Your task to perform on an android device: turn pop-ups off in chrome Image 0: 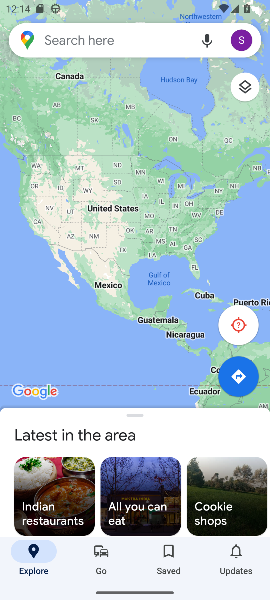
Step 0: press home button
Your task to perform on an android device: turn pop-ups off in chrome Image 1: 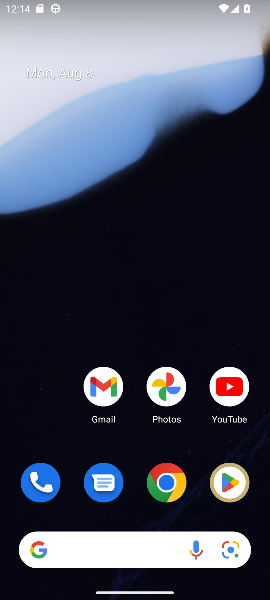
Step 1: drag from (152, 537) to (127, 307)
Your task to perform on an android device: turn pop-ups off in chrome Image 2: 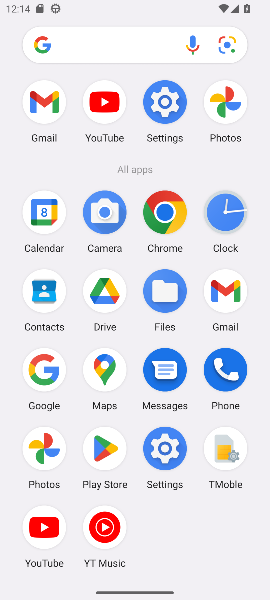
Step 2: click (163, 204)
Your task to perform on an android device: turn pop-ups off in chrome Image 3: 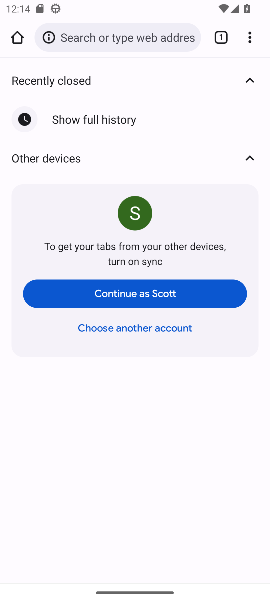
Step 3: click (247, 36)
Your task to perform on an android device: turn pop-ups off in chrome Image 4: 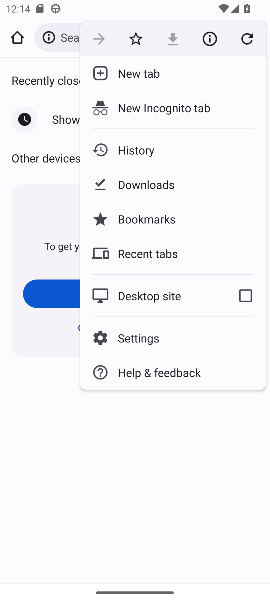
Step 4: click (128, 341)
Your task to perform on an android device: turn pop-ups off in chrome Image 5: 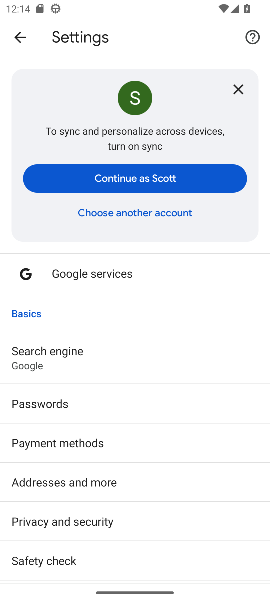
Step 5: drag from (172, 555) to (264, 391)
Your task to perform on an android device: turn pop-ups off in chrome Image 6: 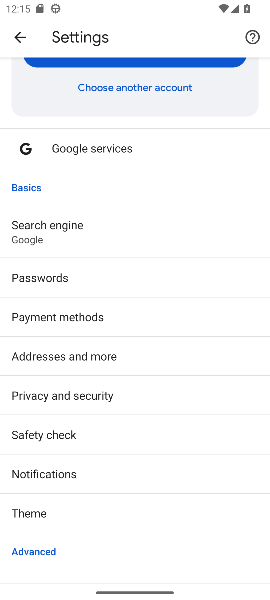
Step 6: drag from (175, 521) to (206, 228)
Your task to perform on an android device: turn pop-ups off in chrome Image 7: 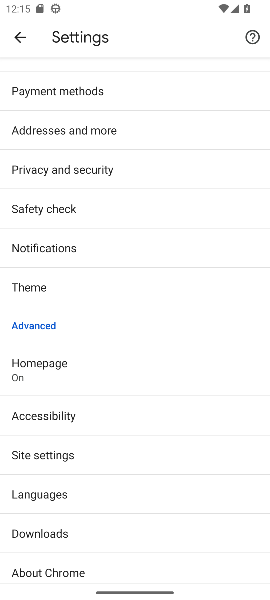
Step 7: click (57, 458)
Your task to perform on an android device: turn pop-ups off in chrome Image 8: 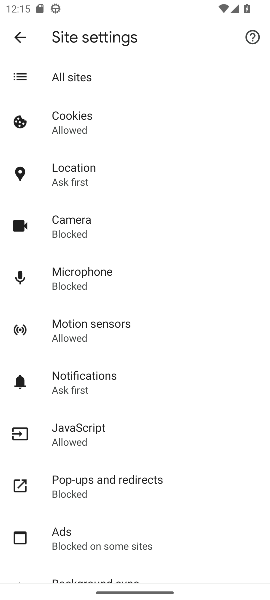
Step 8: click (84, 487)
Your task to perform on an android device: turn pop-ups off in chrome Image 9: 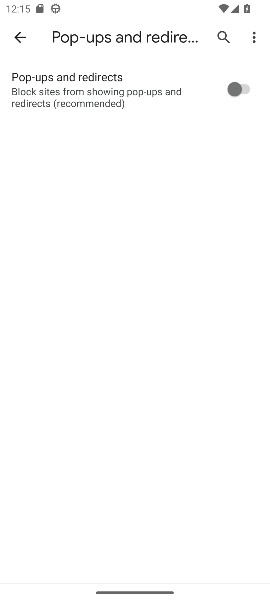
Step 9: task complete